Your task to perform on an android device: View the shopping cart on walmart. Search for asus zenbook on walmart, select the first entry, and add it to the cart. Image 0: 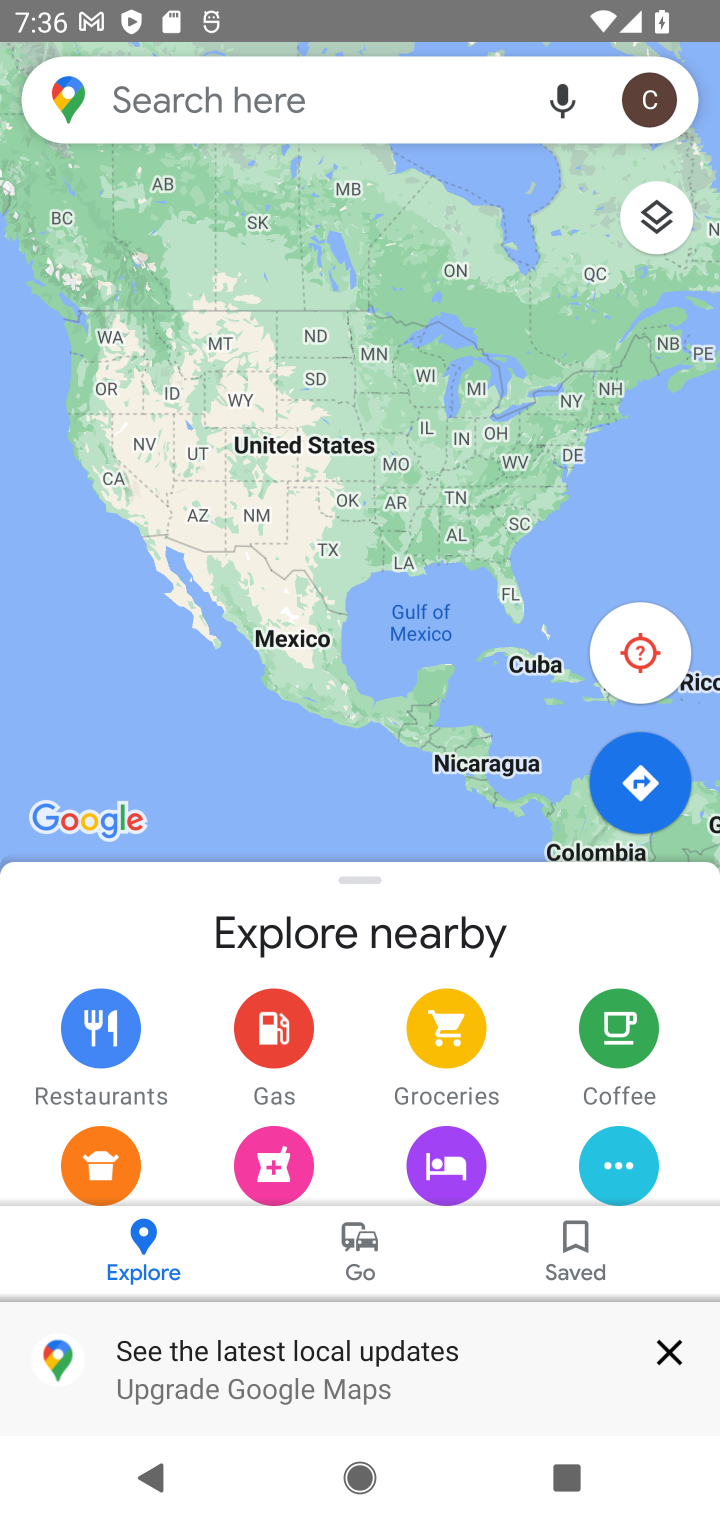
Step 0: press home button
Your task to perform on an android device: View the shopping cart on walmart. Search for asus zenbook on walmart, select the first entry, and add it to the cart. Image 1: 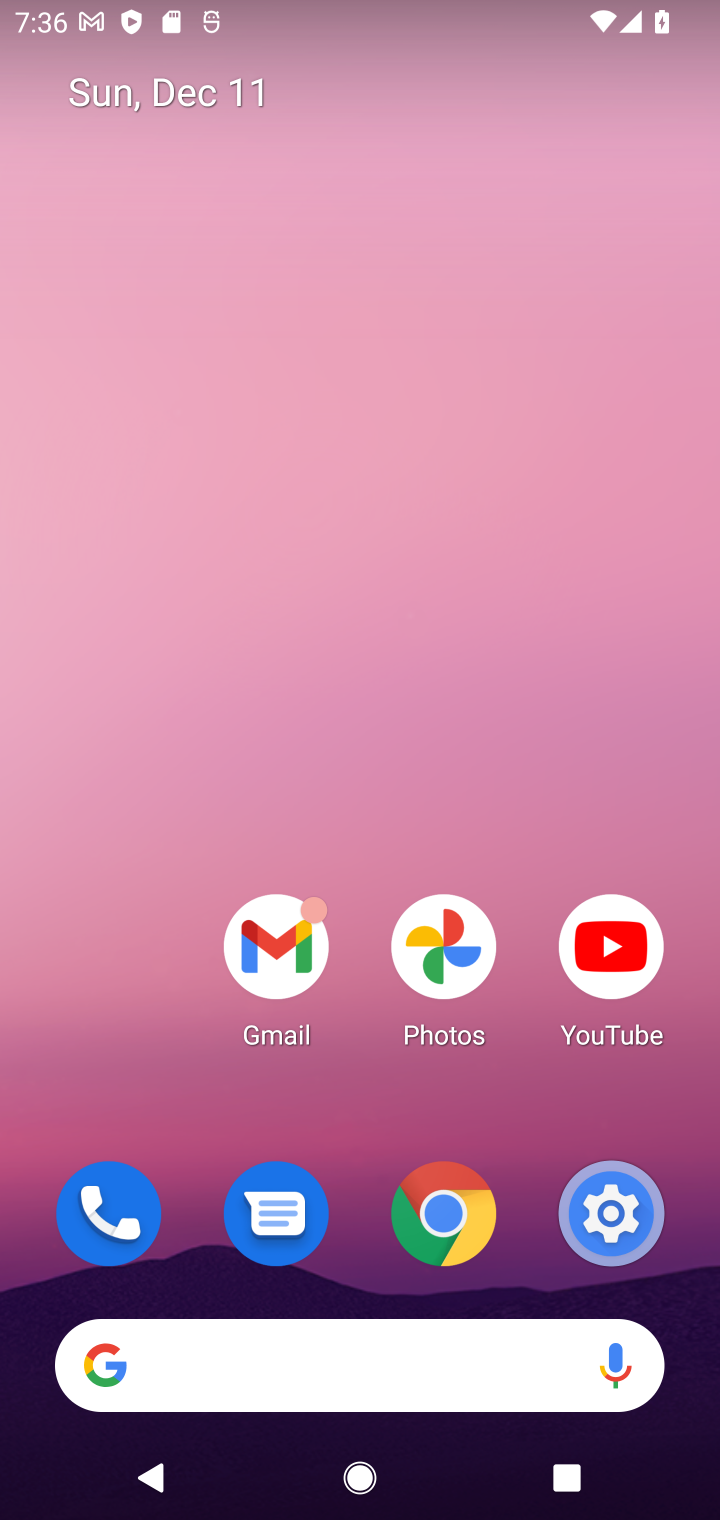
Step 1: click (342, 1363)
Your task to perform on an android device: View the shopping cart on walmart. Search for asus zenbook on walmart, select the first entry, and add it to the cart. Image 2: 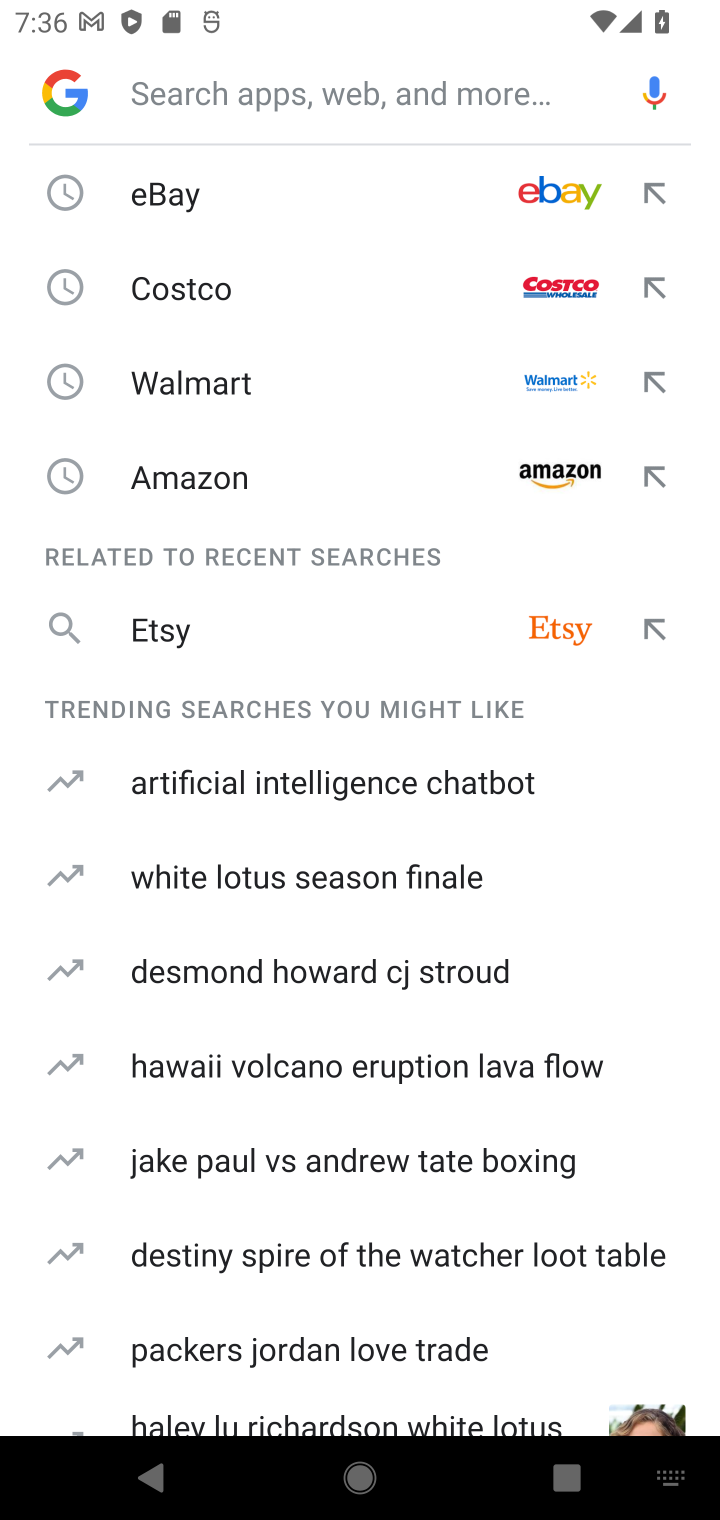
Step 2: type "walmmart"
Your task to perform on an android device: View the shopping cart on walmart. Search for asus zenbook on walmart, select the first entry, and add it to the cart. Image 3: 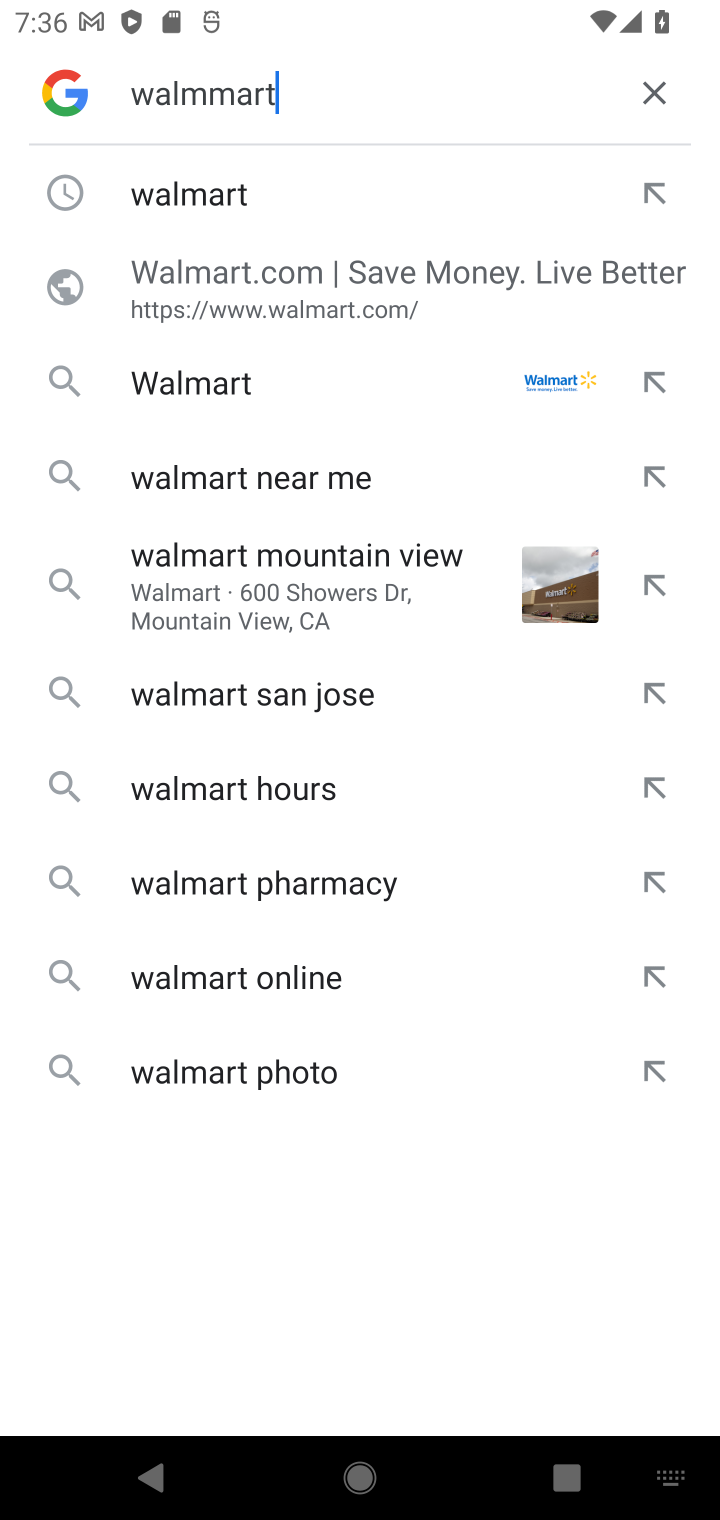
Step 3: click (206, 280)
Your task to perform on an android device: View the shopping cart on walmart. Search for asus zenbook on walmart, select the first entry, and add it to the cart. Image 4: 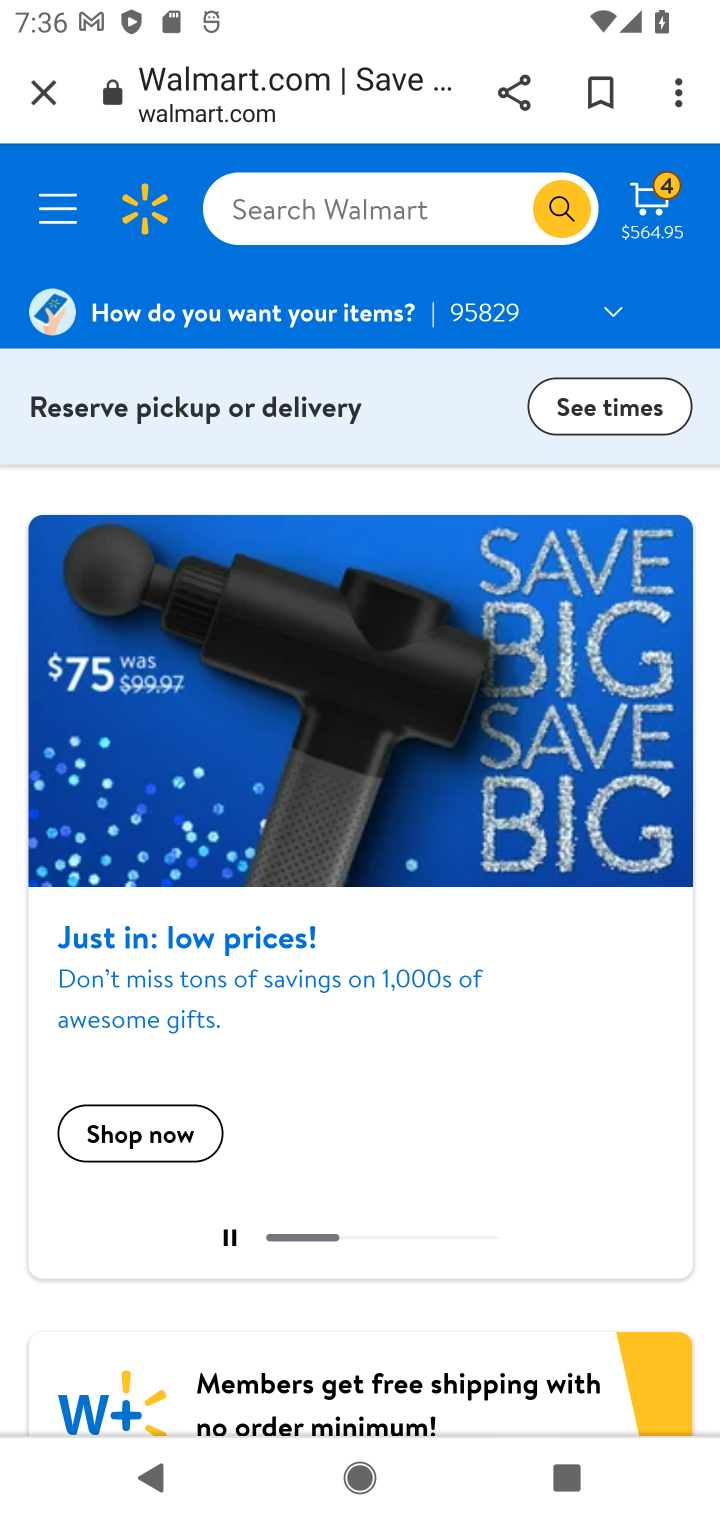
Step 4: click (311, 220)
Your task to perform on an android device: View the shopping cart on walmart. Search for asus zenbook on walmart, select the first entry, and add it to the cart. Image 5: 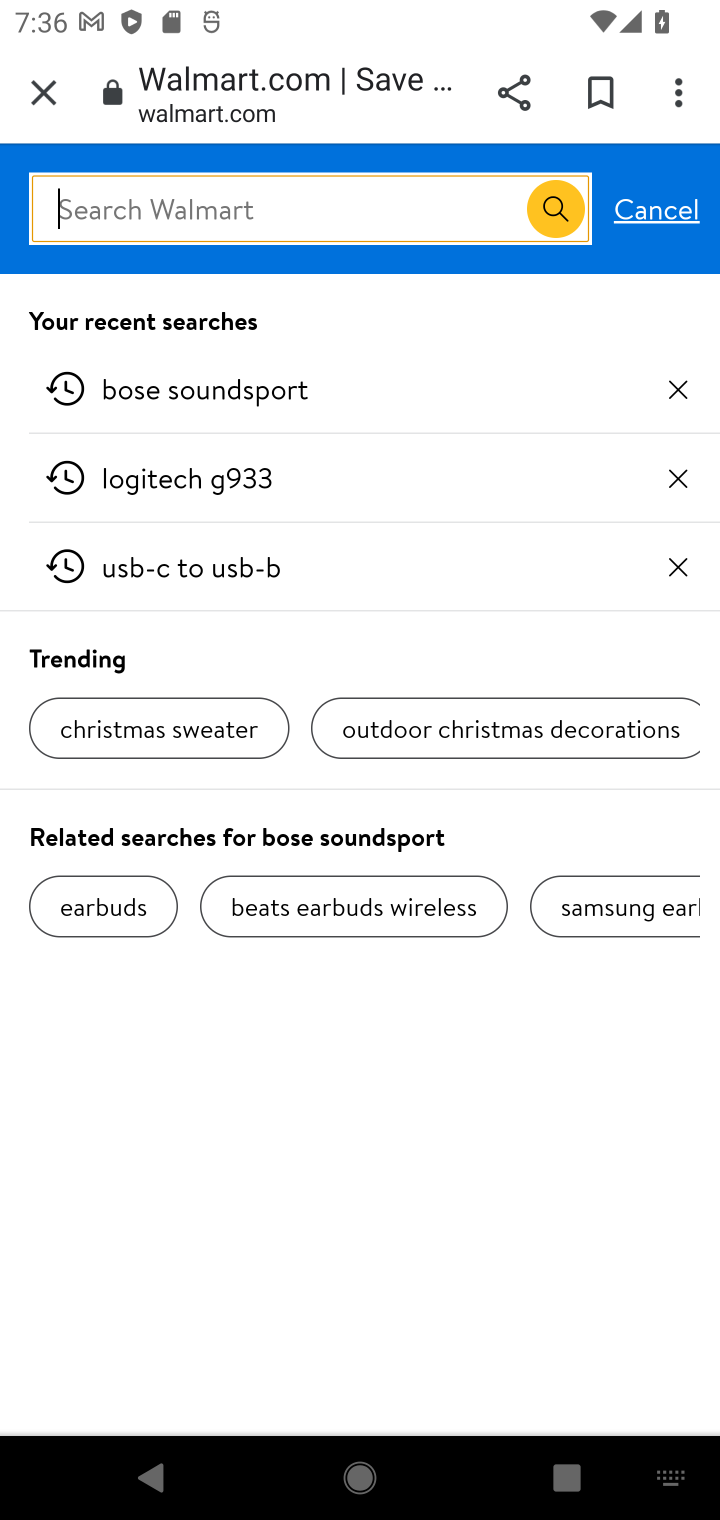
Step 5: type "asus zenbook"
Your task to perform on an android device: View the shopping cart on walmart. Search for asus zenbook on walmart, select the first entry, and add it to the cart. Image 6: 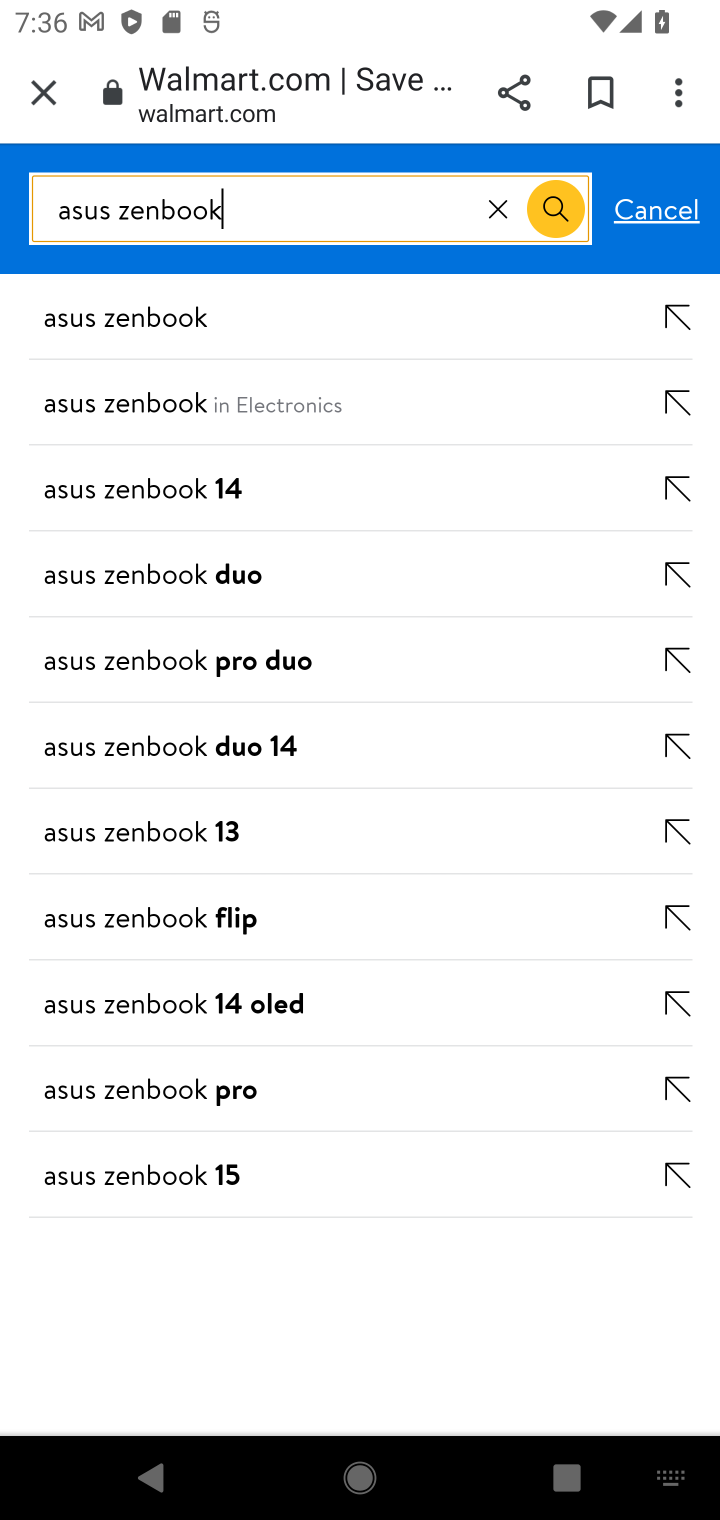
Step 6: click (233, 340)
Your task to perform on an android device: View the shopping cart on walmart. Search for asus zenbook on walmart, select the first entry, and add it to the cart. Image 7: 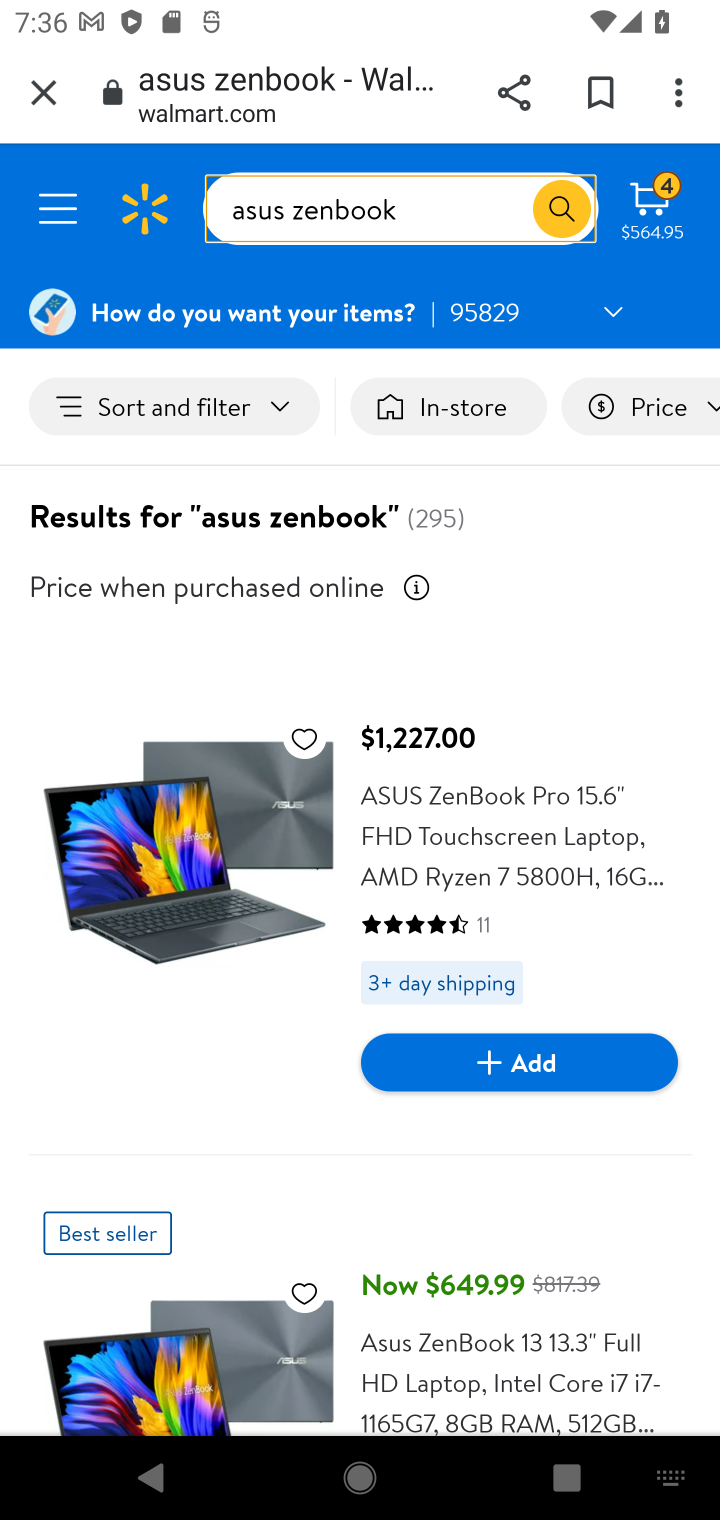
Step 7: click (545, 1062)
Your task to perform on an android device: View the shopping cart on walmart. Search for asus zenbook on walmart, select the first entry, and add it to the cart. Image 8: 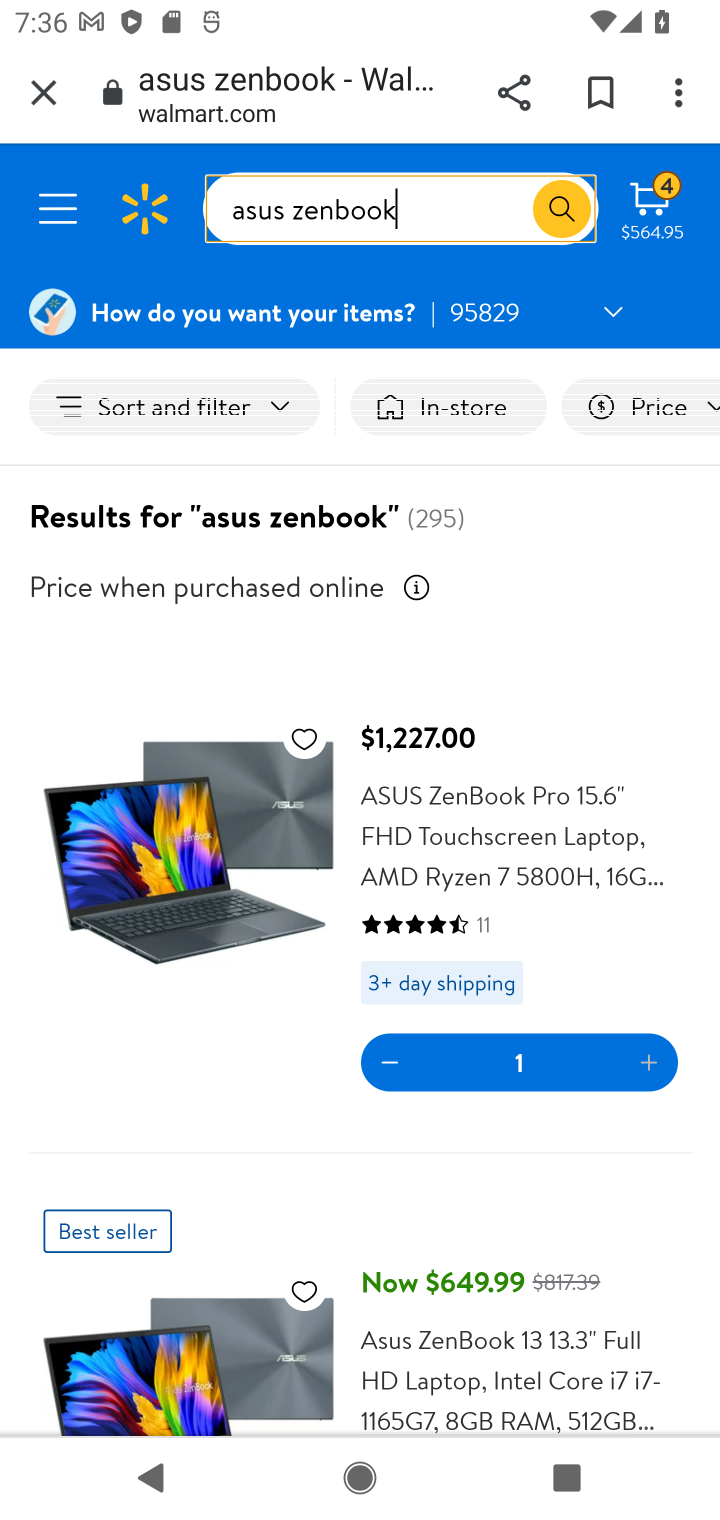
Step 8: task complete